Your task to perform on an android device: change keyboard looks Image 0: 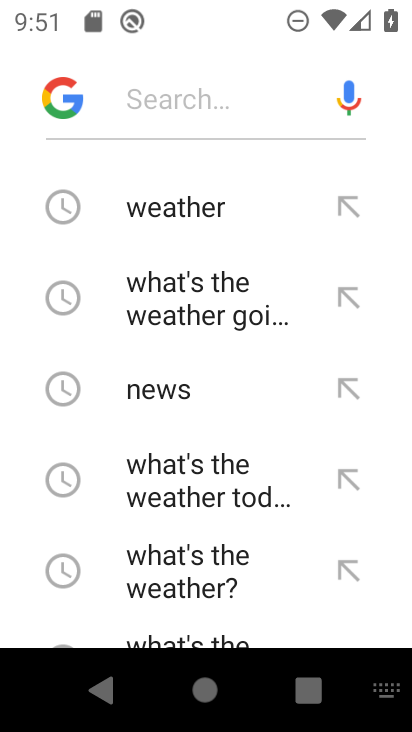
Step 0: press back button
Your task to perform on an android device: change keyboard looks Image 1: 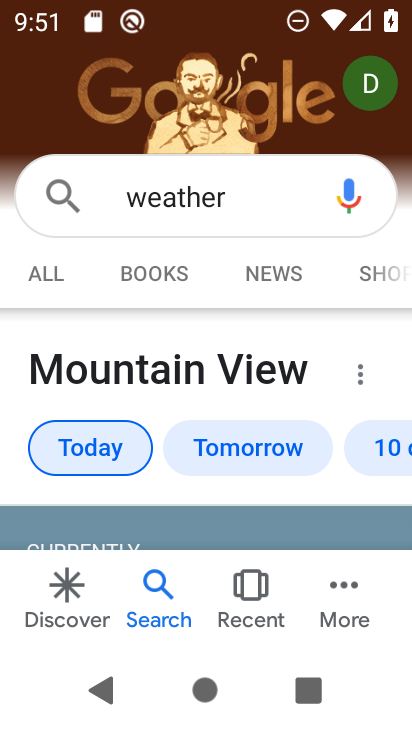
Step 1: press back button
Your task to perform on an android device: change keyboard looks Image 2: 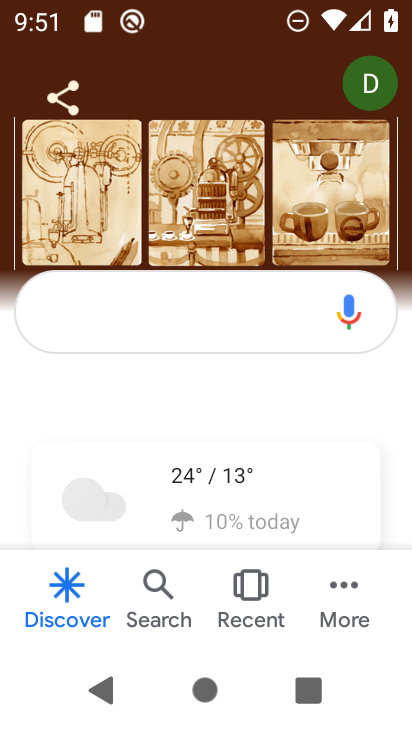
Step 2: press back button
Your task to perform on an android device: change keyboard looks Image 3: 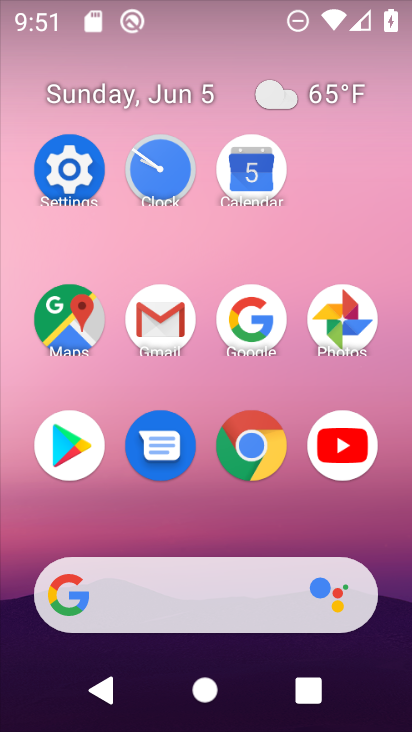
Step 3: click (84, 180)
Your task to perform on an android device: change keyboard looks Image 4: 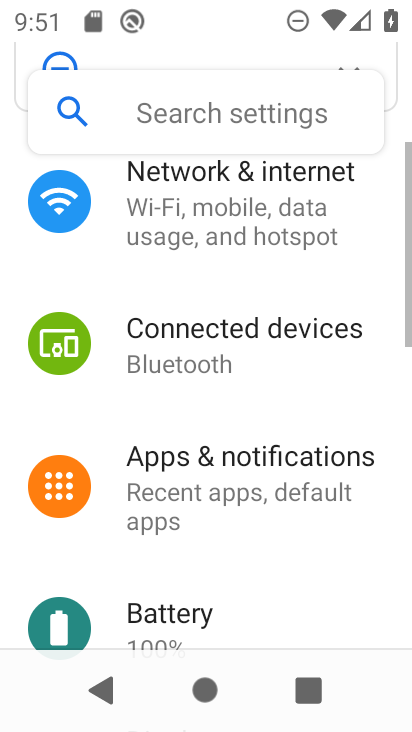
Step 4: drag from (239, 552) to (224, 115)
Your task to perform on an android device: change keyboard looks Image 5: 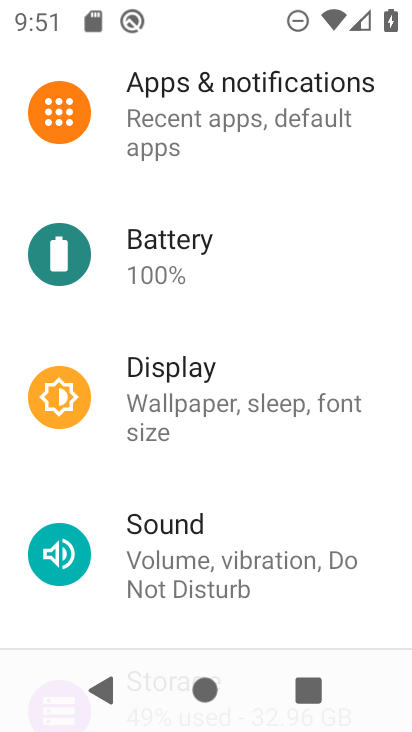
Step 5: drag from (213, 477) to (206, 155)
Your task to perform on an android device: change keyboard looks Image 6: 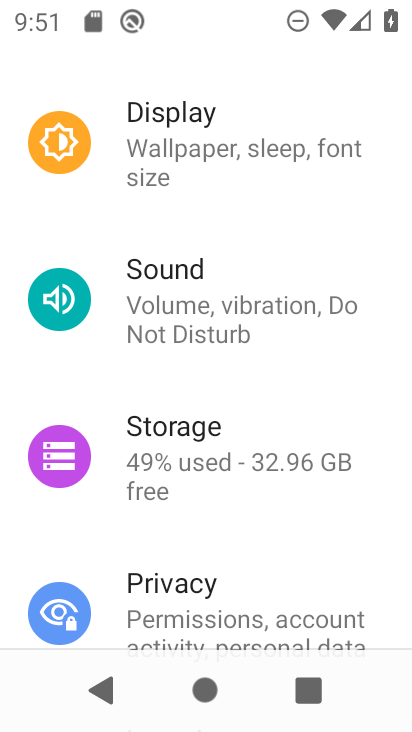
Step 6: drag from (237, 460) to (206, 85)
Your task to perform on an android device: change keyboard looks Image 7: 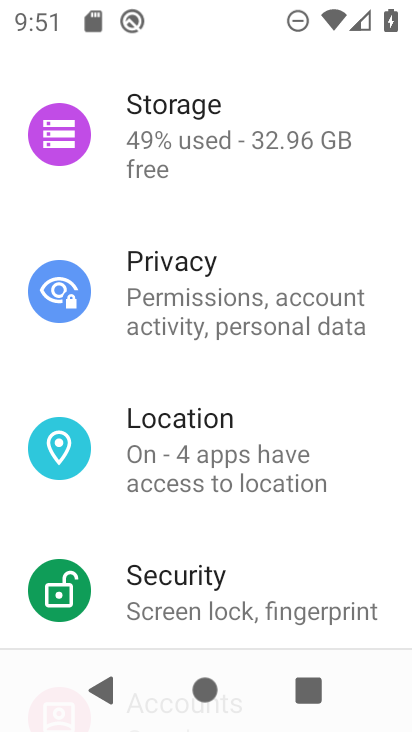
Step 7: drag from (278, 537) to (227, 112)
Your task to perform on an android device: change keyboard looks Image 8: 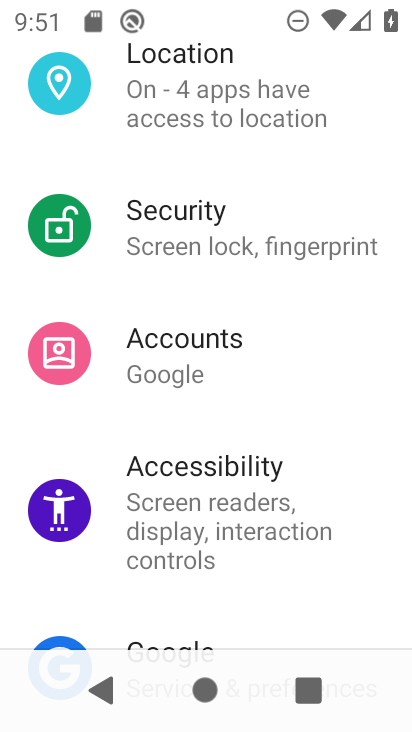
Step 8: drag from (322, 575) to (231, 113)
Your task to perform on an android device: change keyboard looks Image 9: 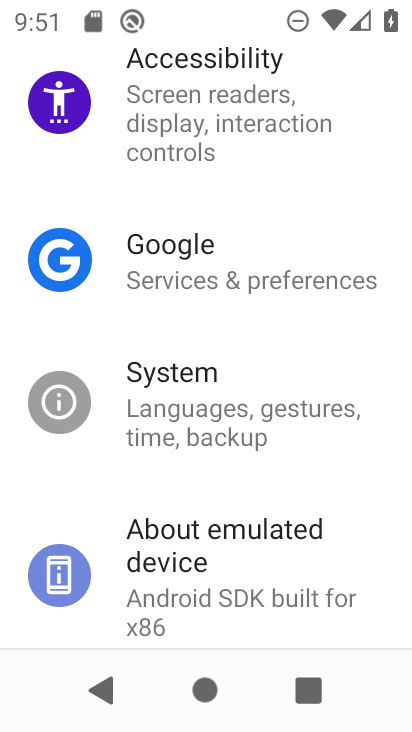
Step 9: drag from (276, 491) to (232, 85)
Your task to perform on an android device: change keyboard looks Image 10: 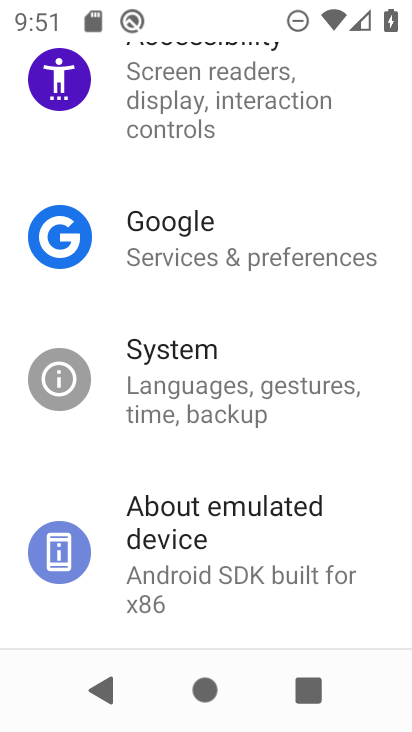
Step 10: click (229, 390)
Your task to perform on an android device: change keyboard looks Image 11: 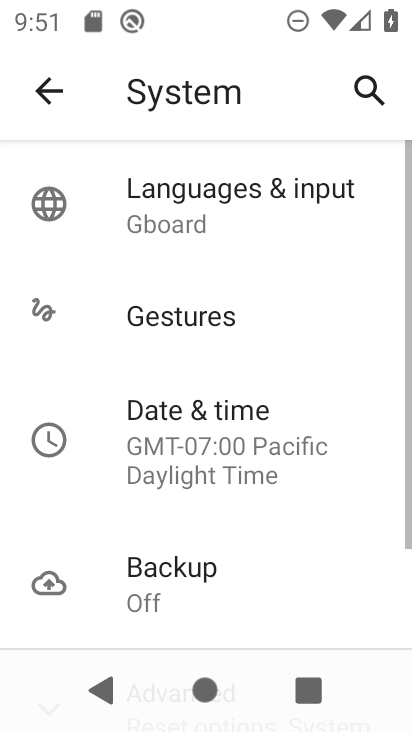
Step 11: click (232, 214)
Your task to perform on an android device: change keyboard looks Image 12: 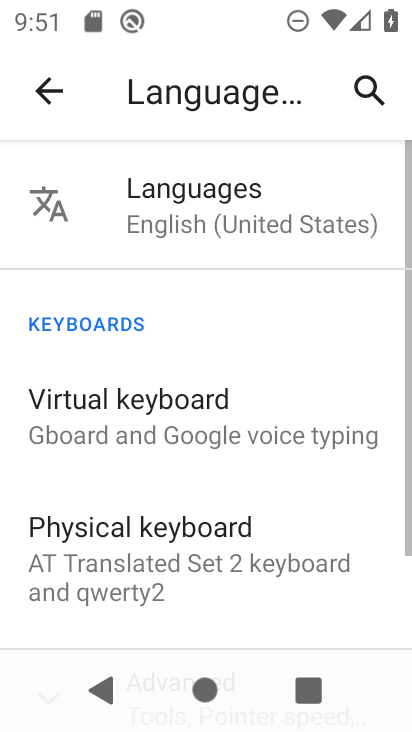
Step 12: click (255, 406)
Your task to perform on an android device: change keyboard looks Image 13: 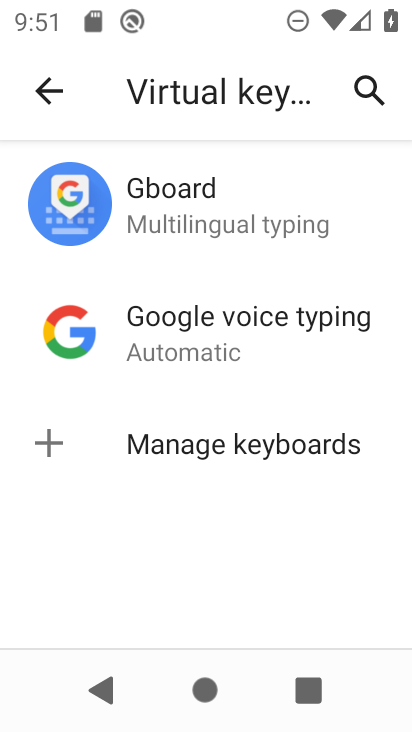
Step 13: click (221, 237)
Your task to perform on an android device: change keyboard looks Image 14: 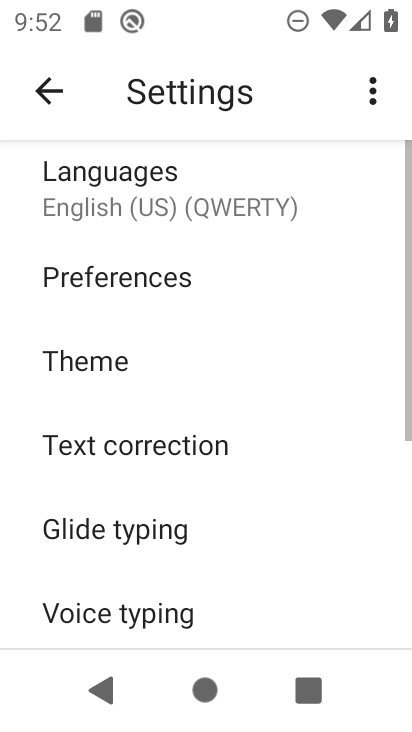
Step 14: click (105, 349)
Your task to perform on an android device: change keyboard looks Image 15: 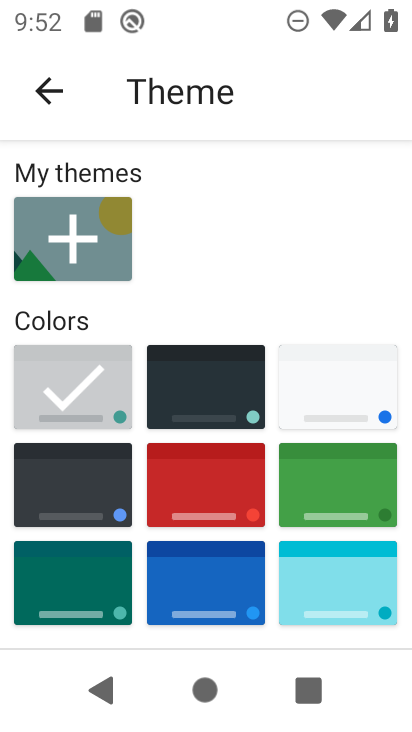
Step 15: click (244, 404)
Your task to perform on an android device: change keyboard looks Image 16: 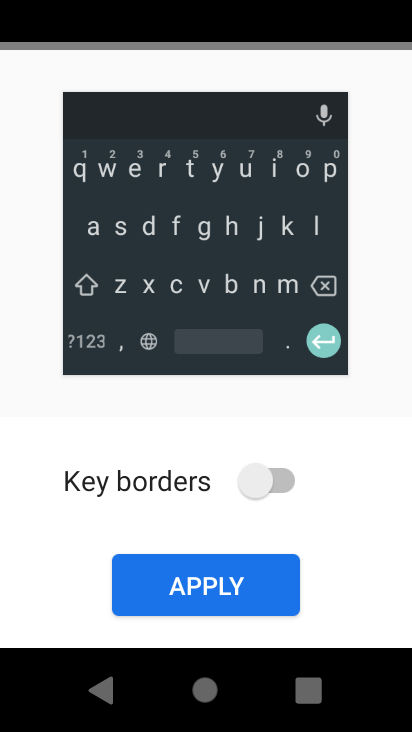
Step 16: click (266, 482)
Your task to perform on an android device: change keyboard looks Image 17: 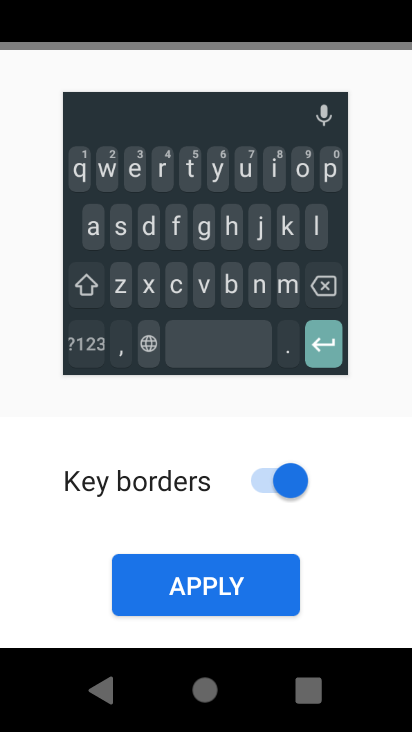
Step 17: click (268, 564)
Your task to perform on an android device: change keyboard looks Image 18: 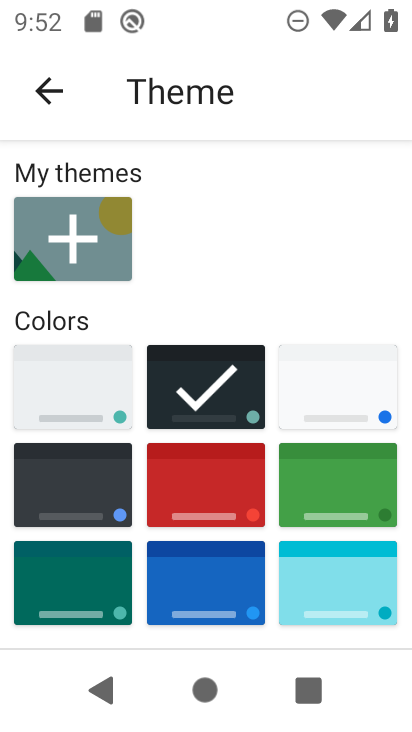
Step 18: task complete